Your task to perform on an android device: Open Youtube and go to the subscriptions tab Image 0: 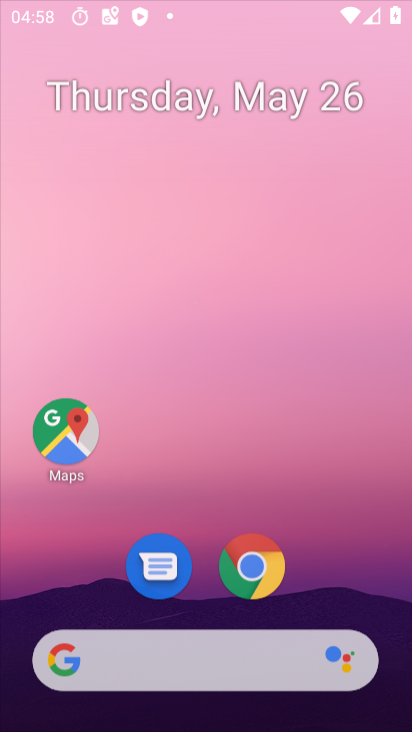
Step 0: click (267, 573)
Your task to perform on an android device: Open Youtube and go to the subscriptions tab Image 1: 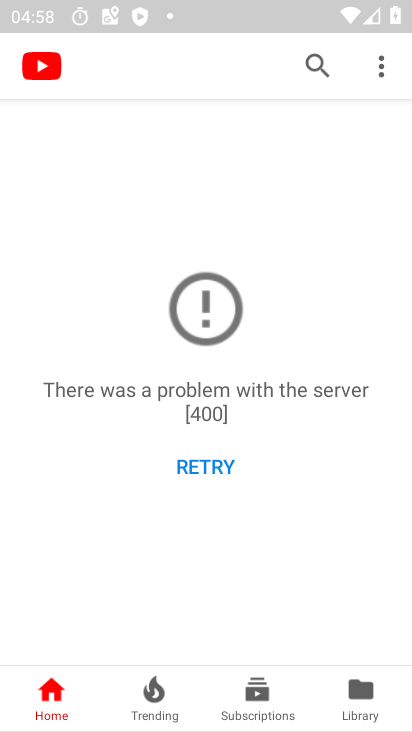
Step 1: press home button
Your task to perform on an android device: Open Youtube and go to the subscriptions tab Image 2: 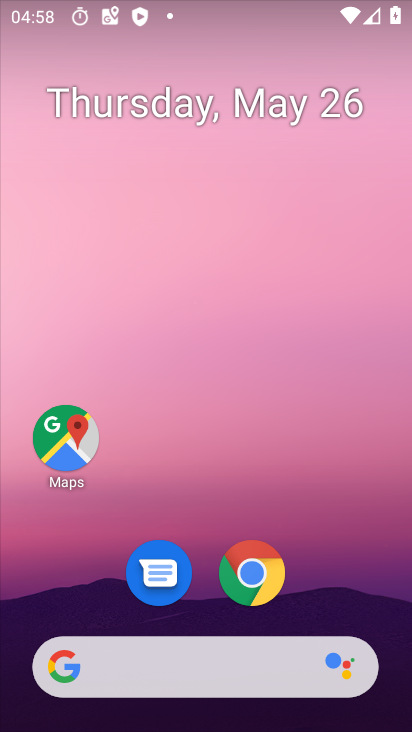
Step 2: click (246, 587)
Your task to perform on an android device: Open Youtube and go to the subscriptions tab Image 3: 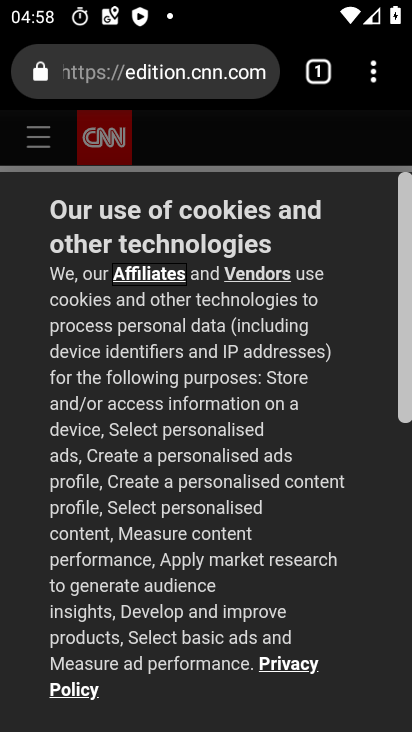
Step 3: click (372, 82)
Your task to perform on an android device: Open Youtube and go to the subscriptions tab Image 4: 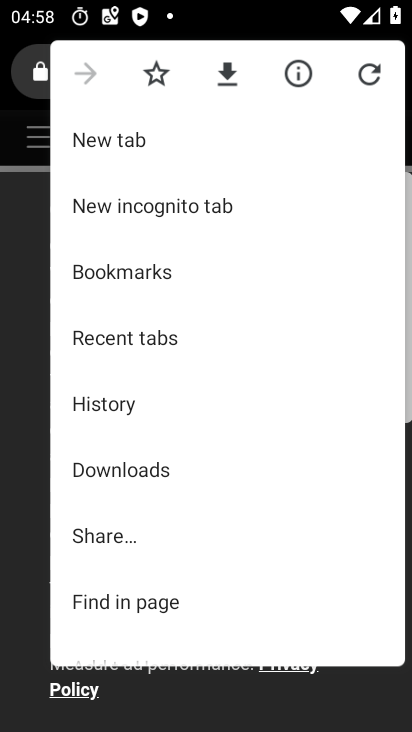
Step 4: drag from (133, 565) to (138, 340)
Your task to perform on an android device: Open Youtube and go to the subscriptions tab Image 5: 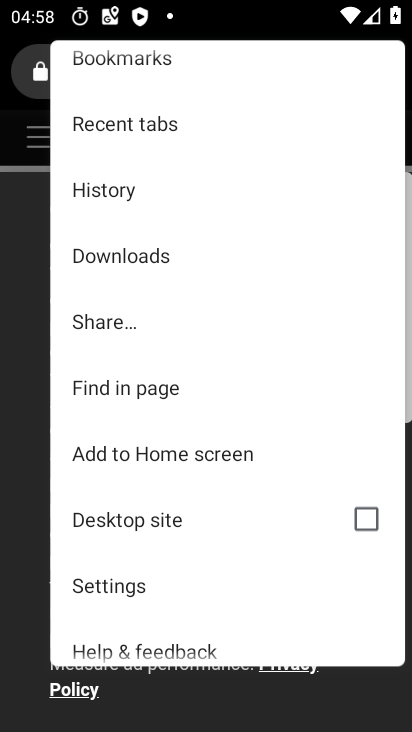
Step 5: click (99, 194)
Your task to perform on an android device: Open Youtube and go to the subscriptions tab Image 6: 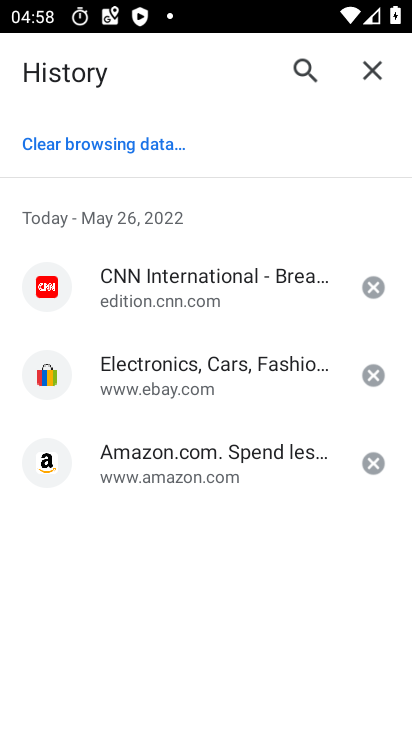
Step 6: click (114, 149)
Your task to perform on an android device: Open Youtube and go to the subscriptions tab Image 7: 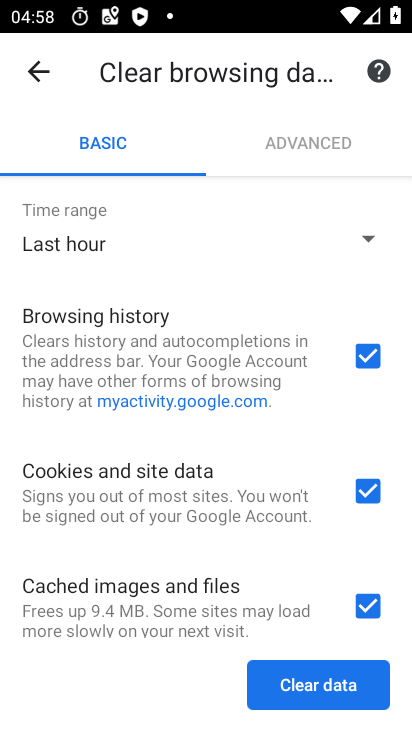
Step 7: click (366, 340)
Your task to perform on an android device: Open Youtube and go to the subscriptions tab Image 8: 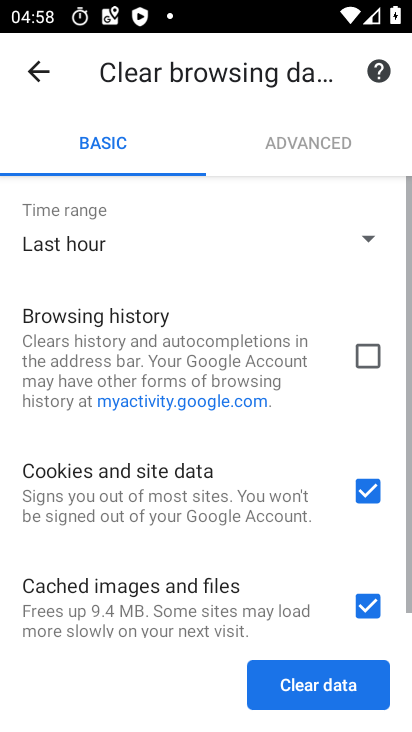
Step 8: click (370, 605)
Your task to perform on an android device: Open Youtube and go to the subscriptions tab Image 9: 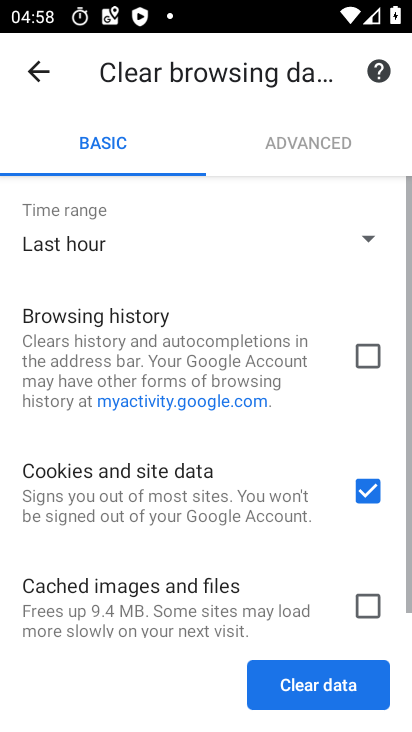
Step 9: click (323, 685)
Your task to perform on an android device: Open Youtube and go to the subscriptions tab Image 10: 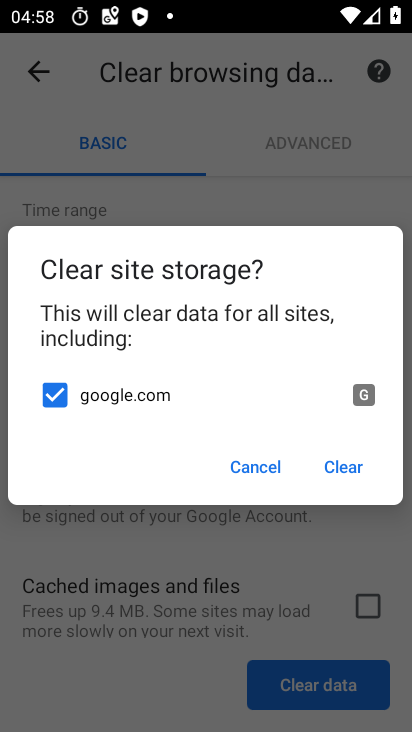
Step 10: click (338, 471)
Your task to perform on an android device: Open Youtube and go to the subscriptions tab Image 11: 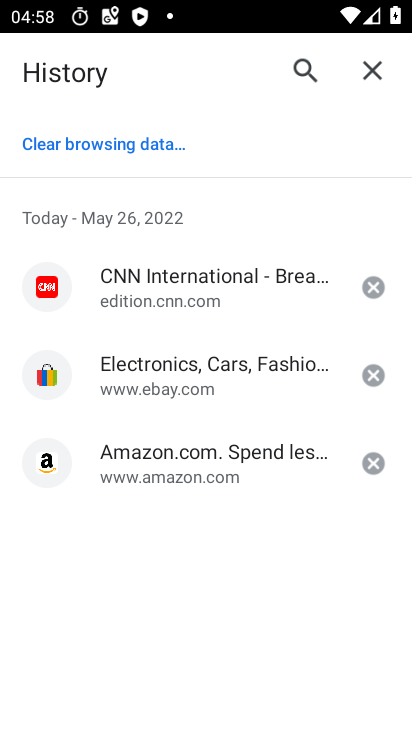
Step 11: task complete